Your task to perform on an android device: turn notification dots off Image 0: 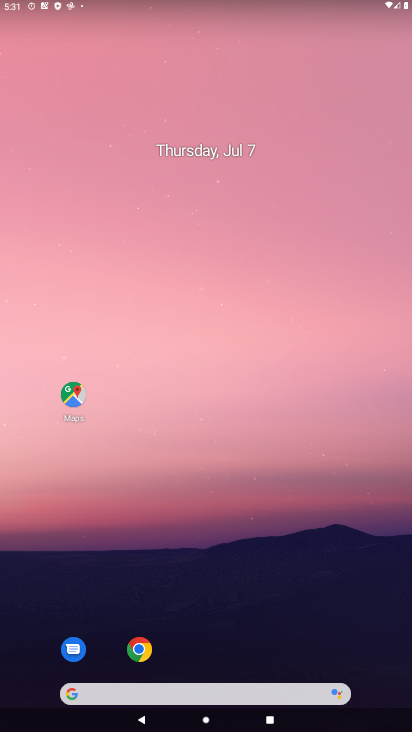
Step 0: drag from (381, 673) to (111, 31)
Your task to perform on an android device: turn notification dots off Image 1: 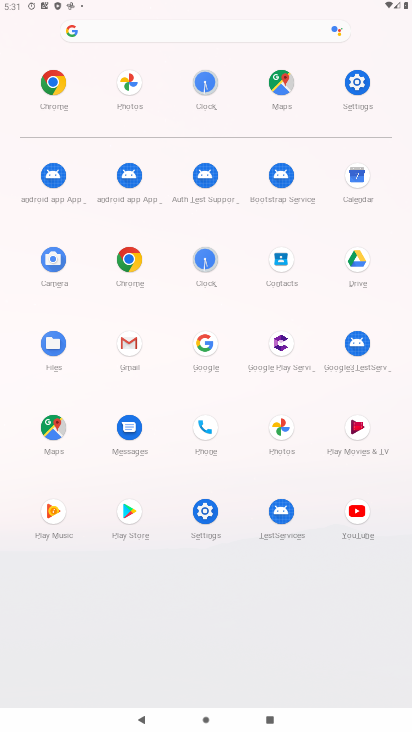
Step 1: click (357, 90)
Your task to perform on an android device: turn notification dots off Image 2: 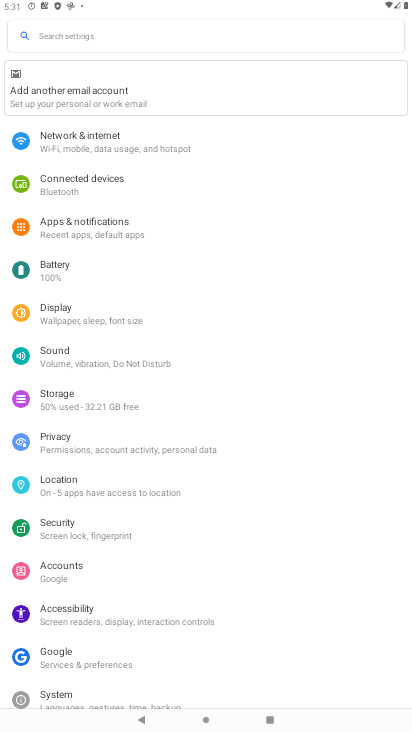
Step 2: click (122, 233)
Your task to perform on an android device: turn notification dots off Image 3: 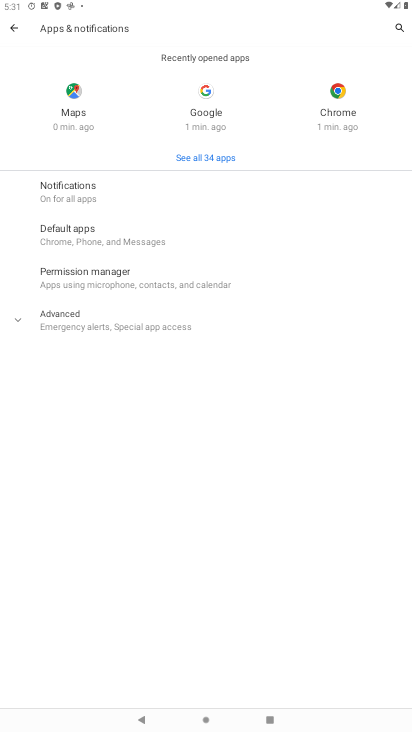
Step 3: click (82, 322)
Your task to perform on an android device: turn notification dots off Image 4: 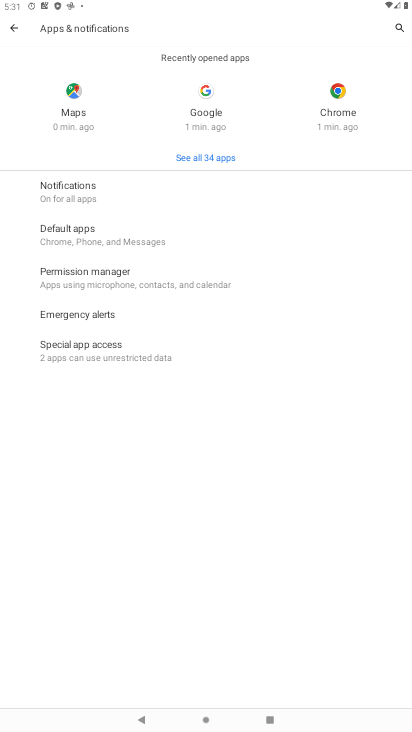
Step 4: click (64, 191)
Your task to perform on an android device: turn notification dots off Image 5: 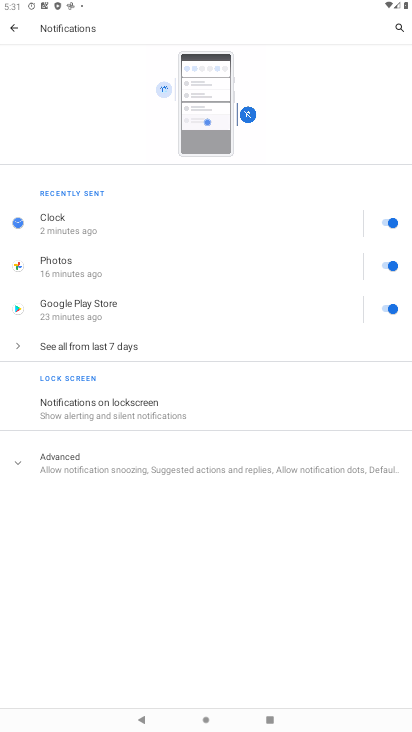
Step 5: click (75, 477)
Your task to perform on an android device: turn notification dots off Image 6: 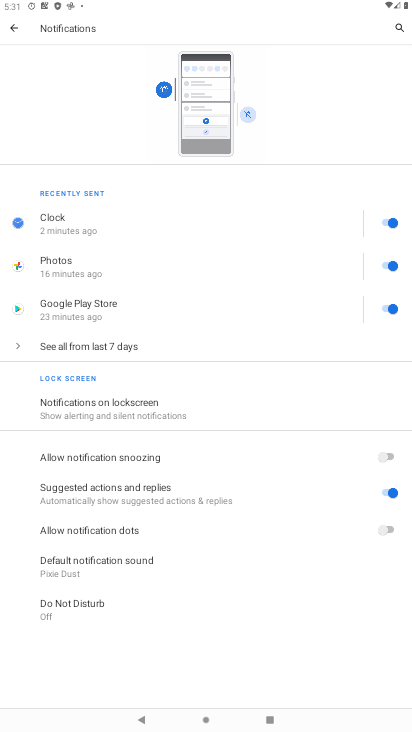
Step 6: click (126, 535)
Your task to perform on an android device: turn notification dots off Image 7: 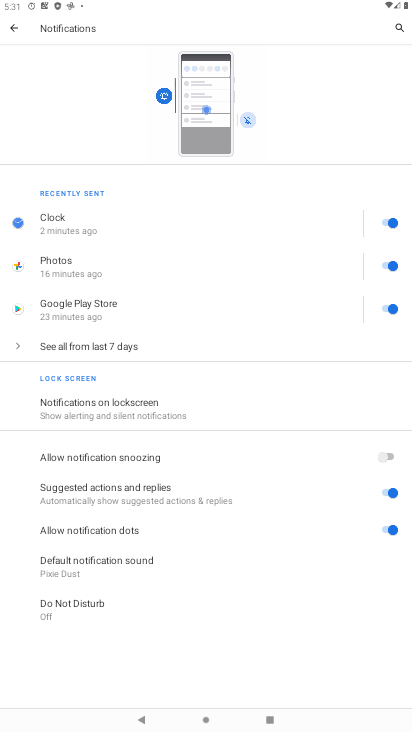
Step 7: click (368, 535)
Your task to perform on an android device: turn notification dots off Image 8: 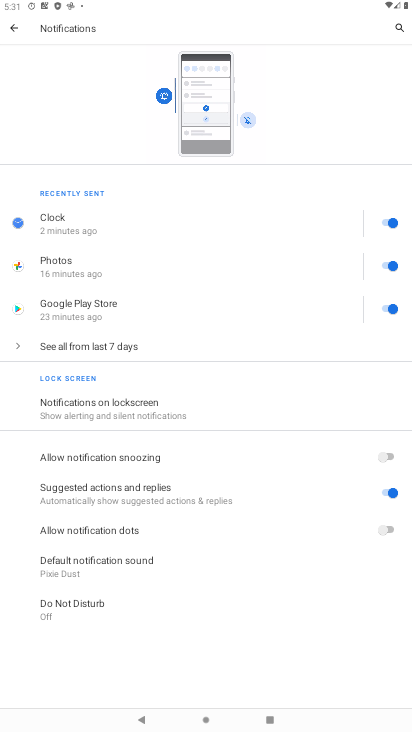
Step 8: task complete